Your task to perform on an android device: Go to Maps Image 0: 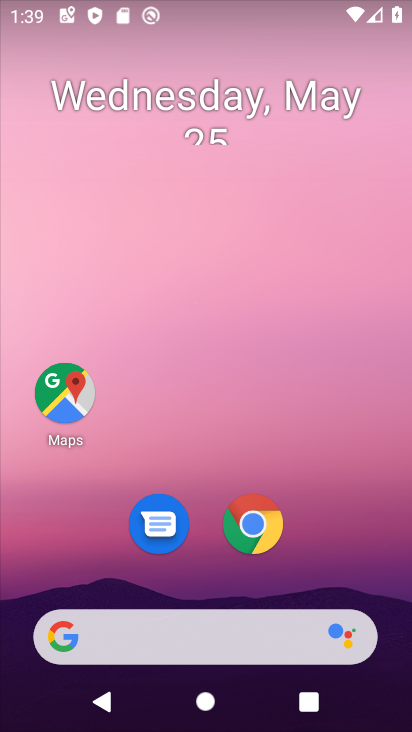
Step 0: drag from (293, 409) to (349, 0)
Your task to perform on an android device: Go to Maps Image 1: 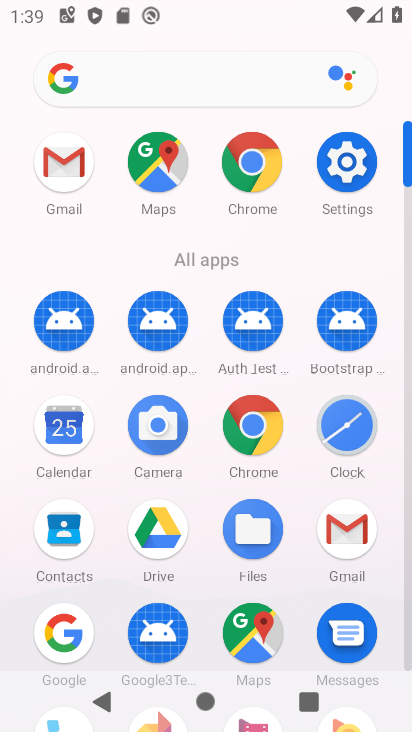
Step 1: click (71, 167)
Your task to perform on an android device: Go to Maps Image 2: 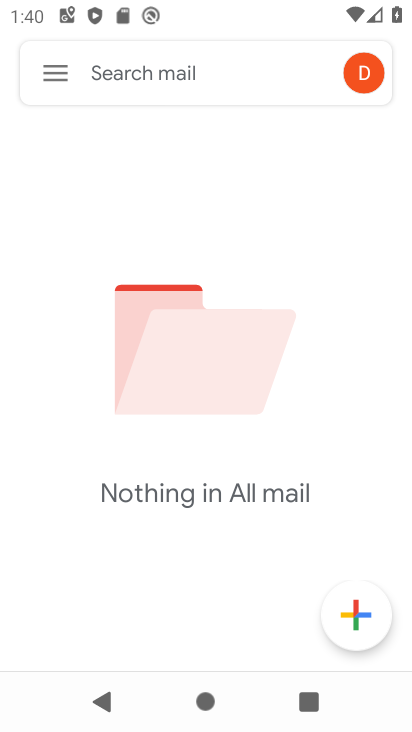
Step 2: press home button
Your task to perform on an android device: Go to Maps Image 3: 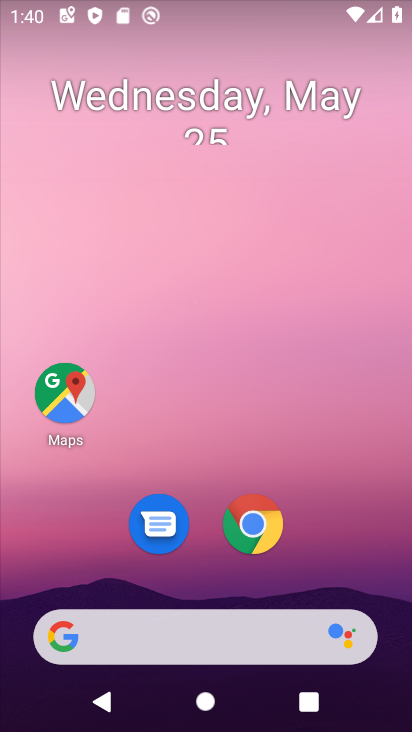
Step 3: click (71, 381)
Your task to perform on an android device: Go to Maps Image 4: 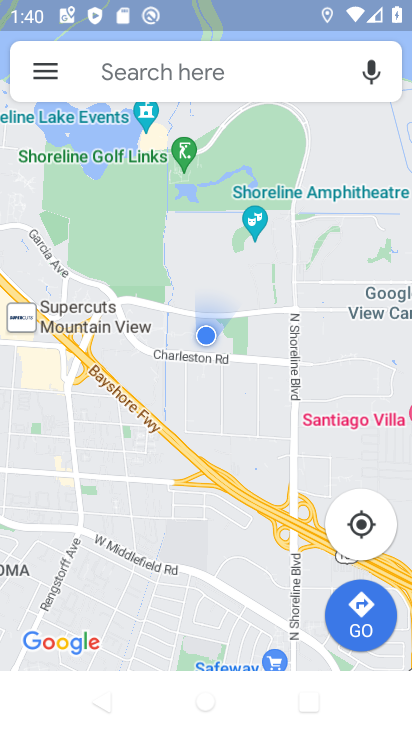
Step 4: task complete